Your task to perform on an android device: open a bookmark in the chrome app Image 0: 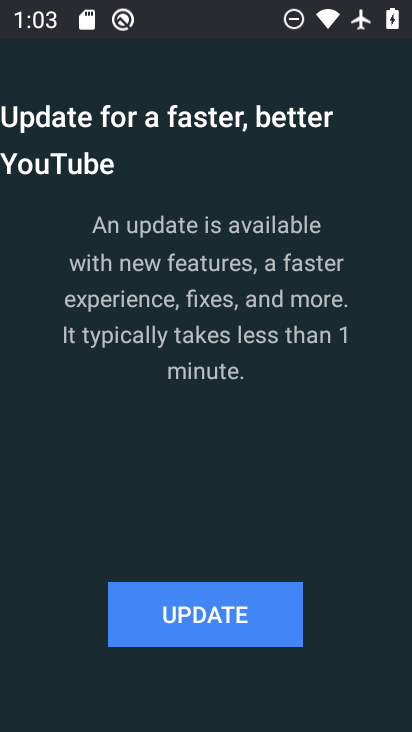
Step 0: press home button
Your task to perform on an android device: open a bookmark in the chrome app Image 1: 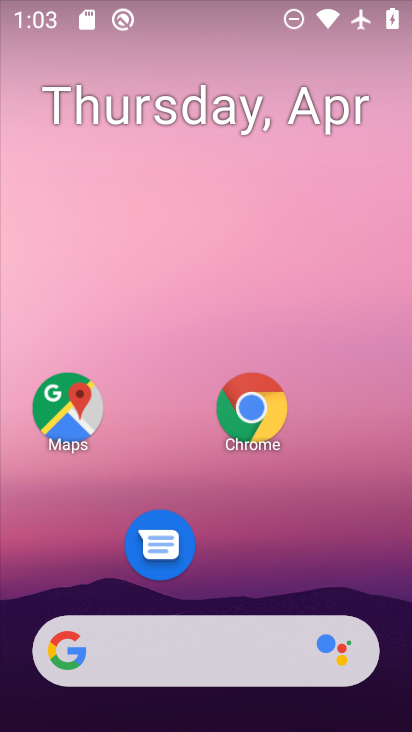
Step 1: click (268, 418)
Your task to perform on an android device: open a bookmark in the chrome app Image 2: 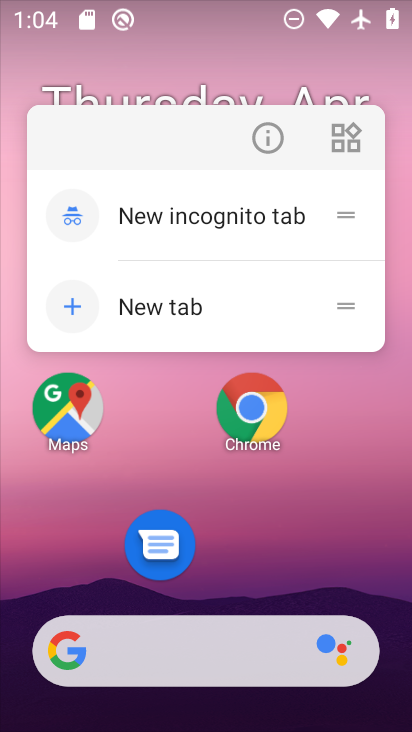
Step 2: click (389, 500)
Your task to perform on an android device: open a bookmark in the chrome app Image 3: 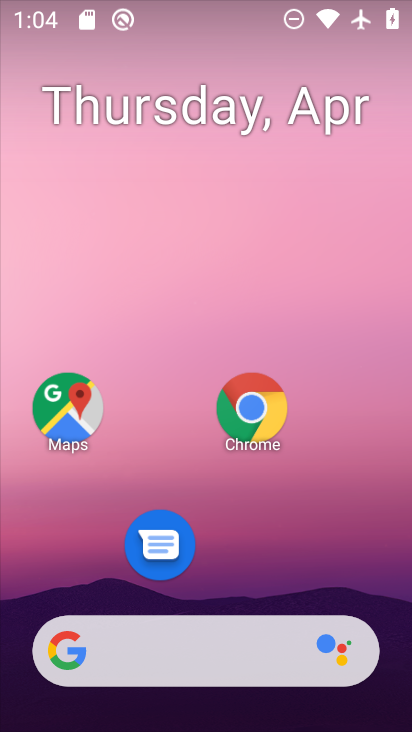
Step 3: click (243, 414)
Your task to perform on an android device: open a bookmark in the chrome app Image 4: 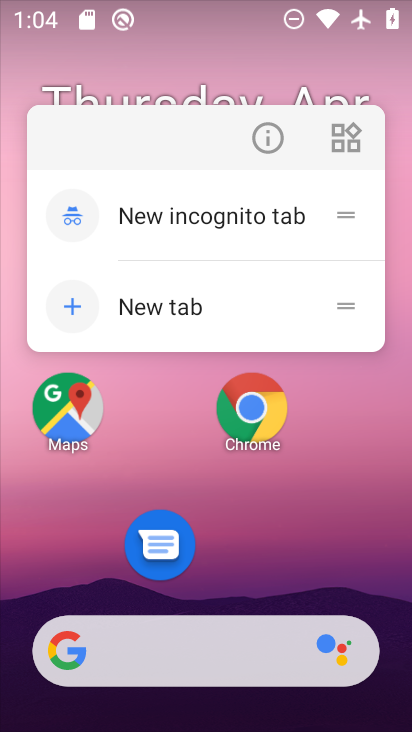
Step 4: click (261, 543)
Your task to perform on an android device: open a bookmark in the chrome app Image 5: 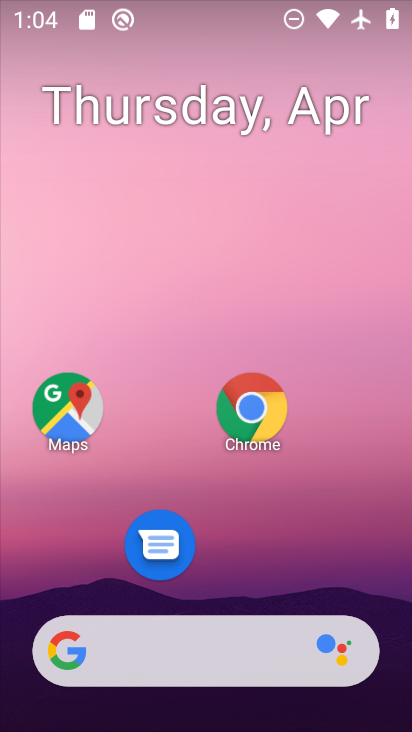
Step 5: click (270, 411)
Your task to perform on an android device: open a bookmark in the chrome app Image 6: 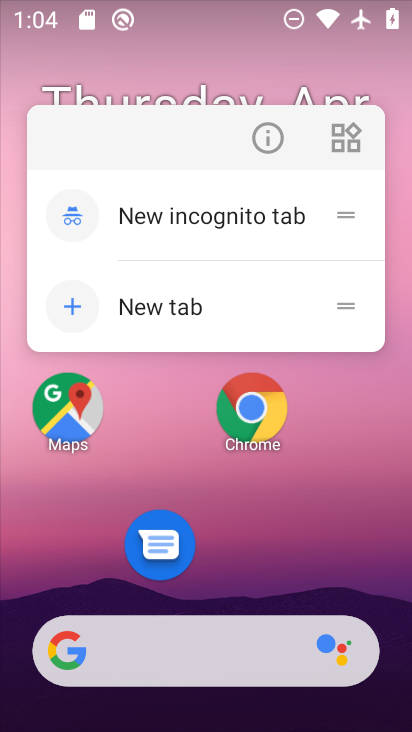
Step 6: drag from (324, 562) to (304, 0)
Your task to perform on an android device: open a bookmark in the chrome app Image 7: 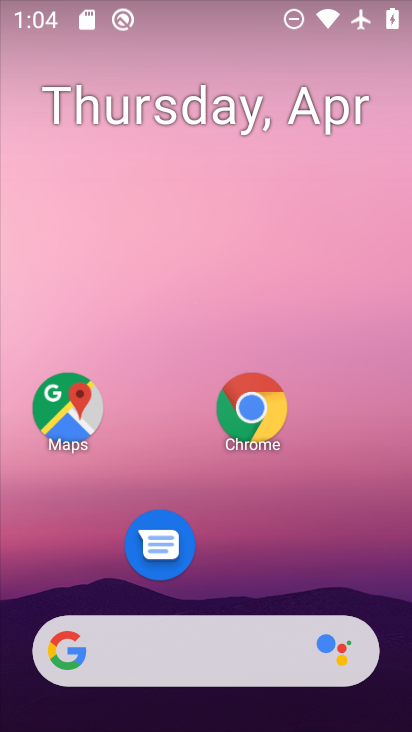
Step 7: drag from (299, 493) to (306, 83)
Your task to perform on an android device: open a bookmark in the chrome app Image 8: 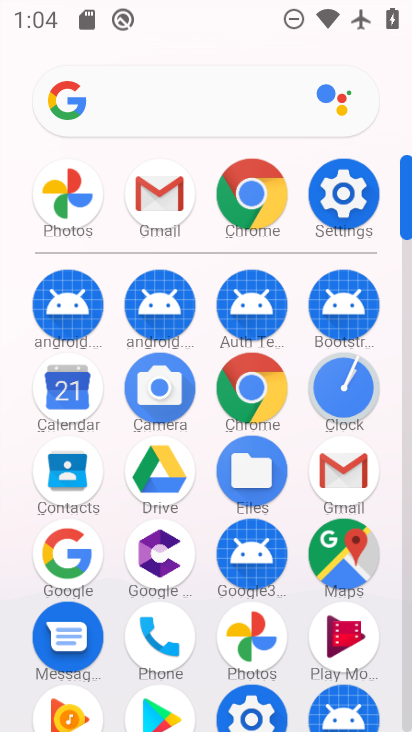
Step 8: click (248, 381)
Your task to perform on an android device: open a bookmark in the chrome app Image 9: 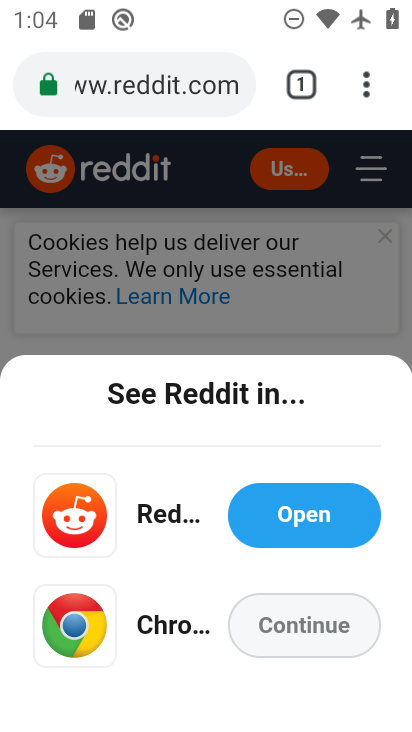
Step 9: task complete